Your task to perform on an android device: Open calendar and show me the first week of next month Image 0: 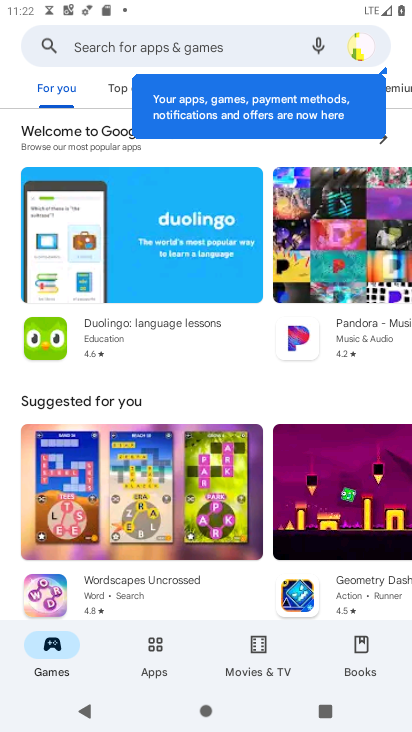
Step 0: press home button
Your task to perform on an android device: Open calendar and show me the first week of next month Image 1: 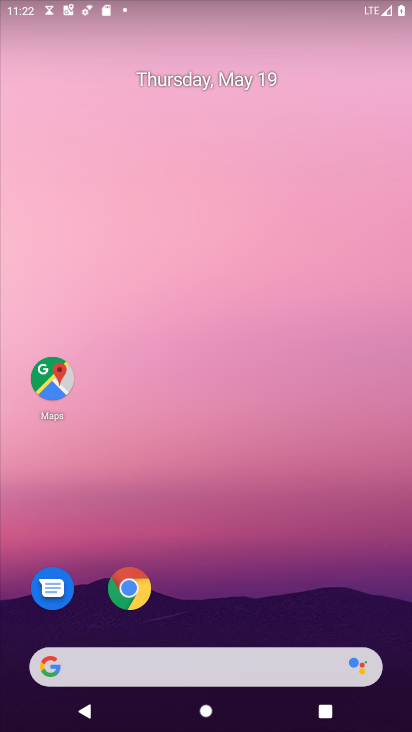
Step 1: drag from (266, 576) to (174, 88)
Your task to perform on an android device: Open calendar and show me the first week of next month Image 2: 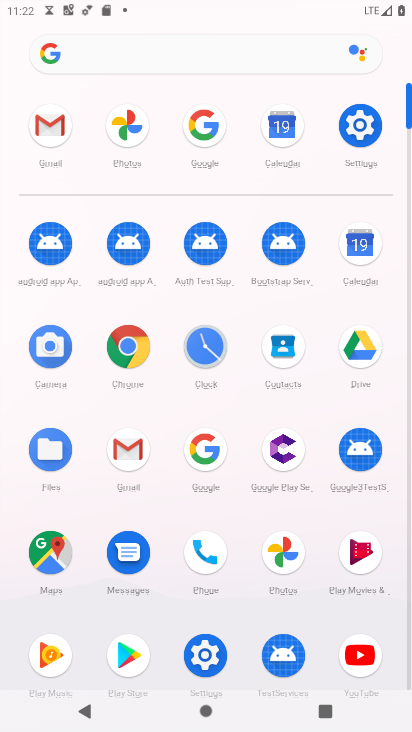
Step 2: click (352, 249)
Your task to perform on an android device: Open calendar and show me the first week of next month Image 3: 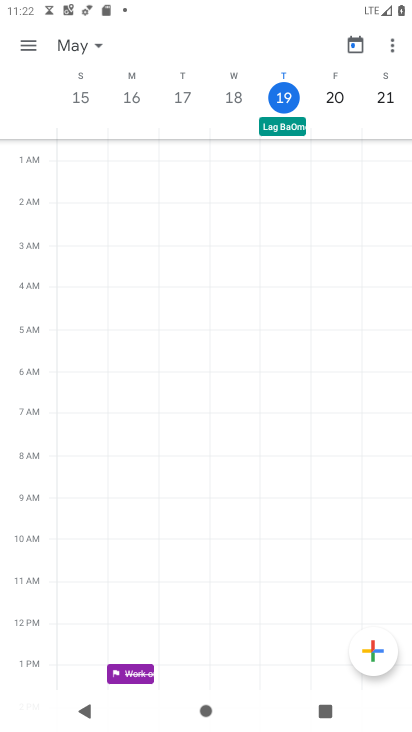
Step 3: click (85, 38)
Your task to perform on an android device: Open calendar and show me the first week of next month Image 4: 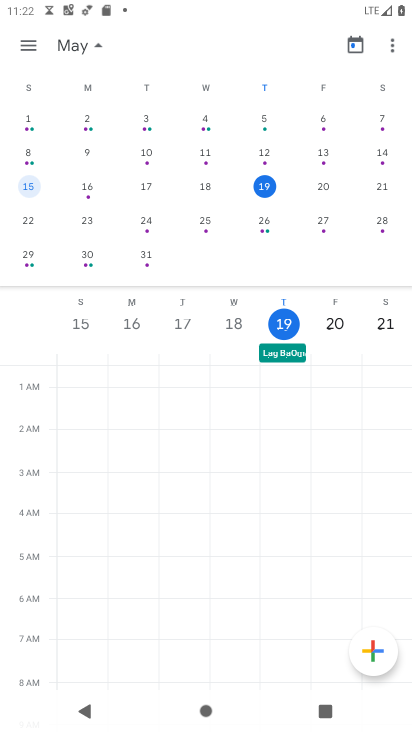
Step 4: task complete